Your task to perform on an android device: turn on translation in the chrome app Image 0: 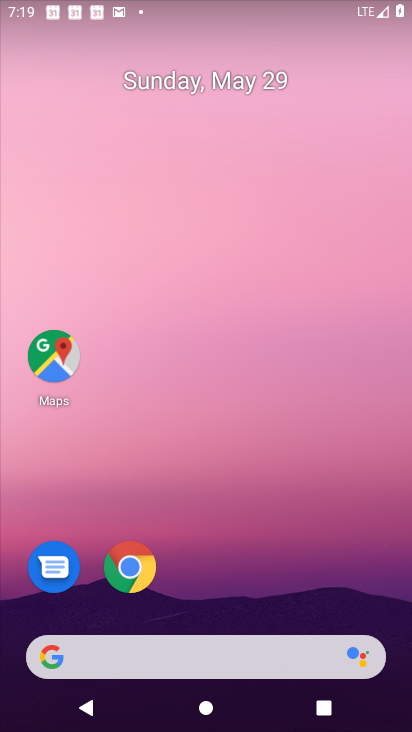
Step 0: drag from (215, 496) to (202, 274)
Your task to perform on an android device: turn on translation in the chrome app Image 1: 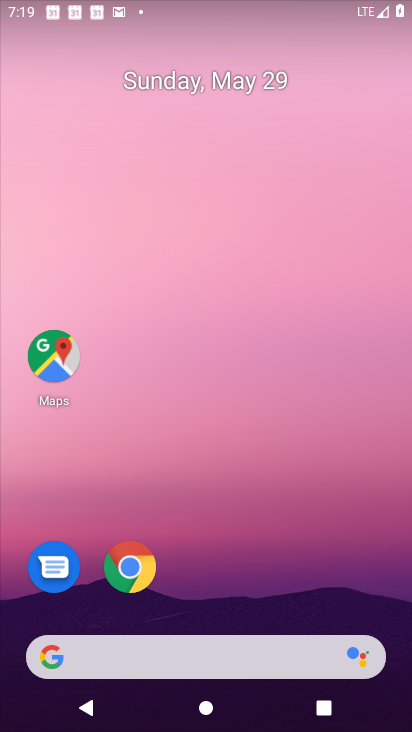
Step 1: drag from (182, 622) to (174, 145)
Your task to perform on an android device: turn on translation in the chrome app Image 2: 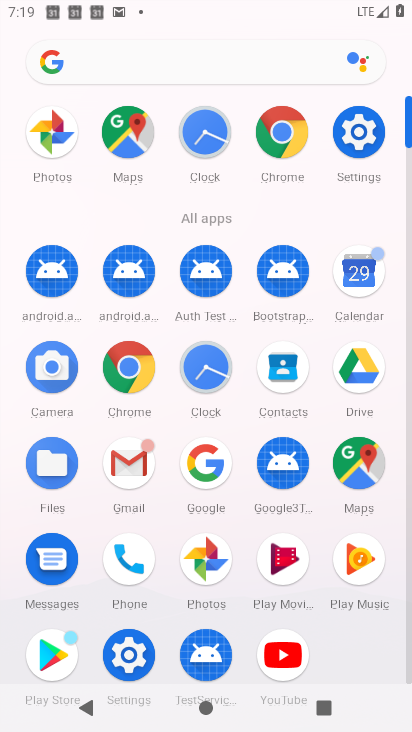
Step 2: click (268, 127)
Your task to perform on an android device: turn on translation in the chrome app Image 3: 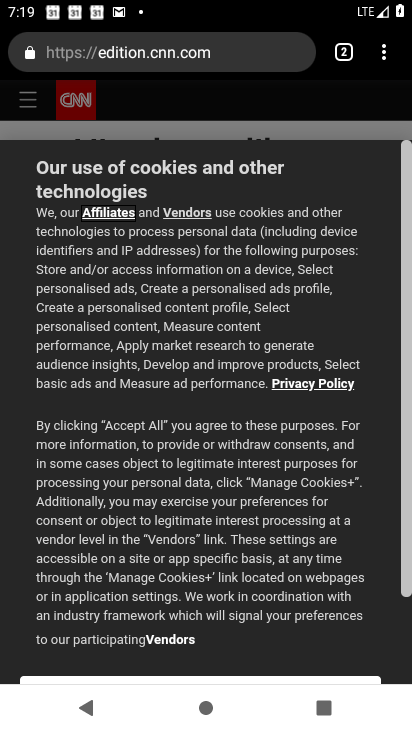
Step 3: click (385, 51)
Your task to perform on an android device: turn on translation in the chrome app Image 4: 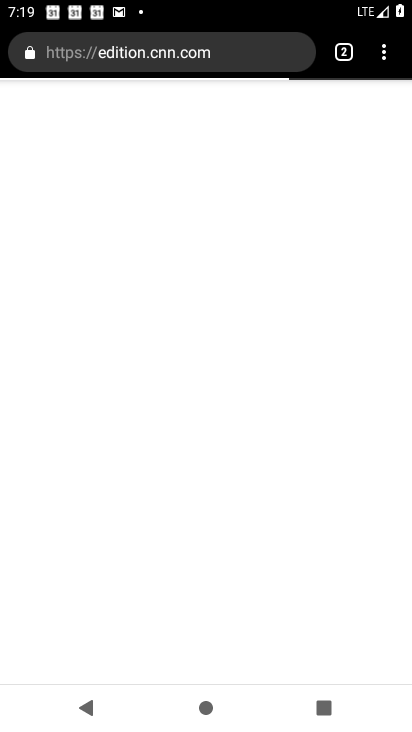
Step 4: click (384, 58)
Your task to perform on an android device: turn on translation in the chrome app Image 5: 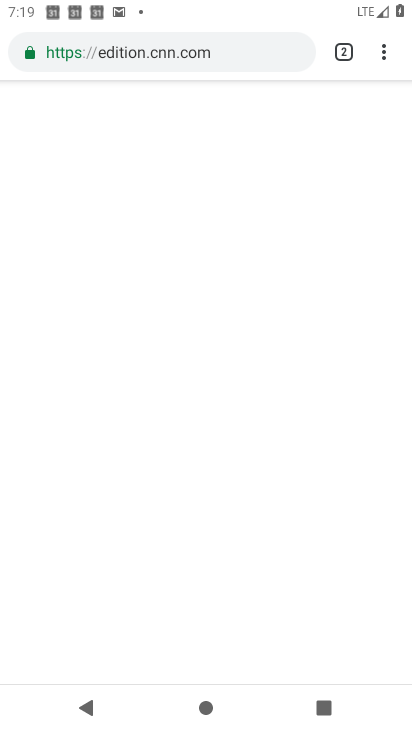
Step 5: click (385, 56)
Your task to perform on an android device: turn on translation in the chrome app Image 6: 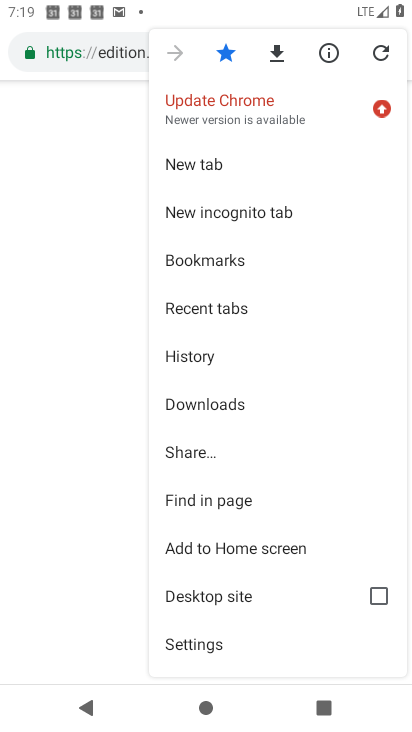
Step 6: click (216, 646)
Your task to perform on an android device: turn on translation in the chrome app Image 7: 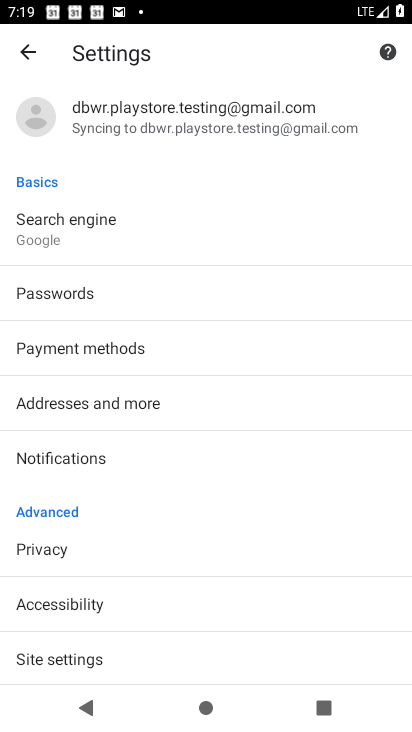
Step 7: drag from (155, 628) to (173, 334)
Your task to perform on an android device: turn on translation in the chrome app Image 8: 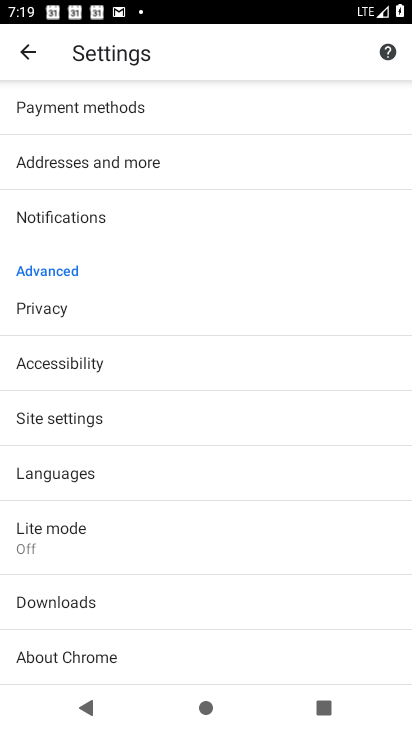
Step 8: click (50, 534)
Your task to perform on an android device: turn on translation in the chrome app Image 9: 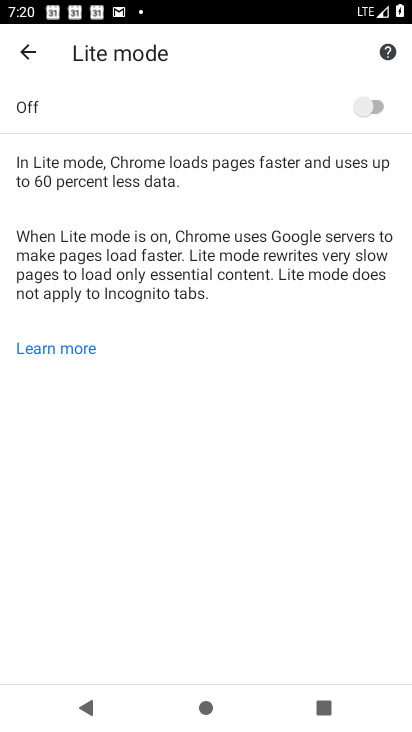
Step 9: click (34, 58)
Your task to perform on an android device: turn on translation in the chrome app Image 10: 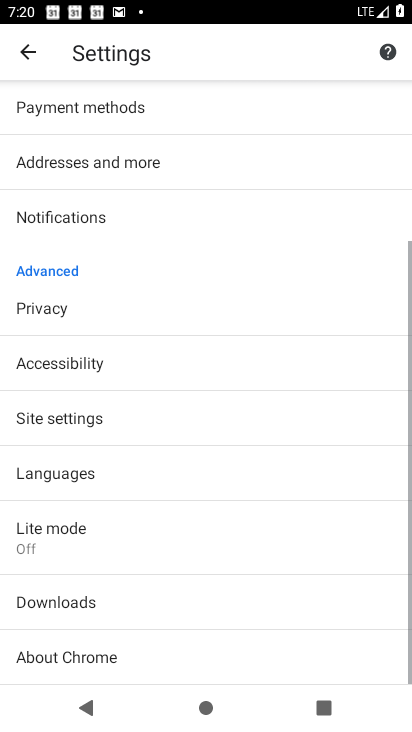
Step 10: click (114, 469)
Your task to perform on an android device: turn on translation in the chrome app Image 11: 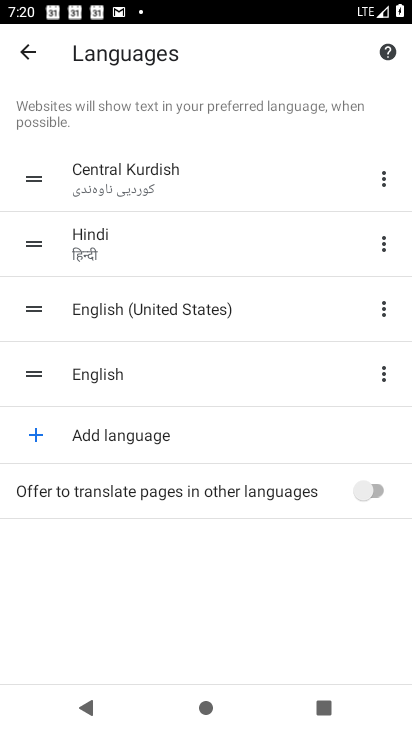
Step 11: click (371, 483)
Your task to perform on an android device: turn on translation in the chrome app Image 12: 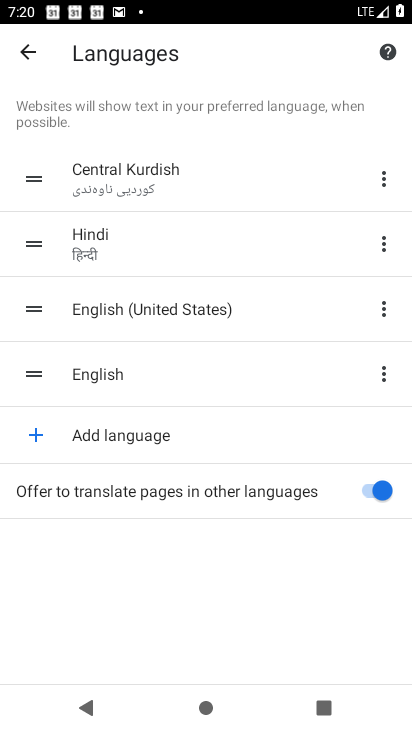
Step 12: task complete